Your task to perform on an android device: Do I have any events tomorrow? Image 0: 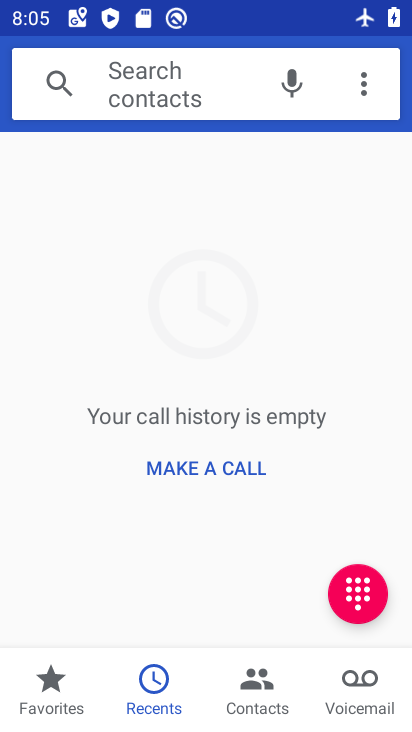
Step 0: press home button
Your task to perform on an android device: Do I have any events tomorrow? Image 1: 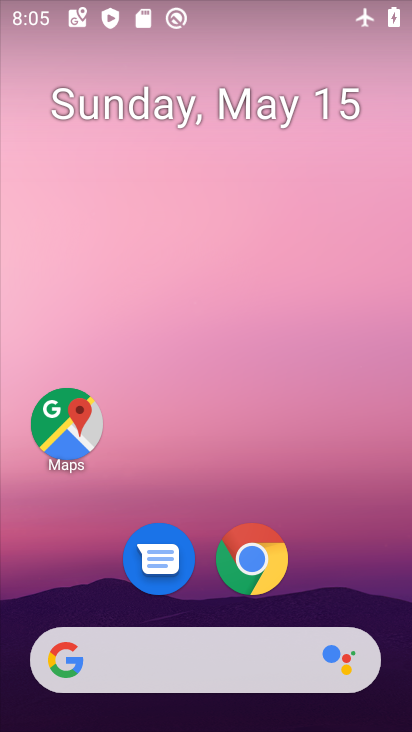
Step 1: drag from (365, 557) to (371, 111)
Your task to perform on an android device: Do I have any events tomorrow? Image 2: 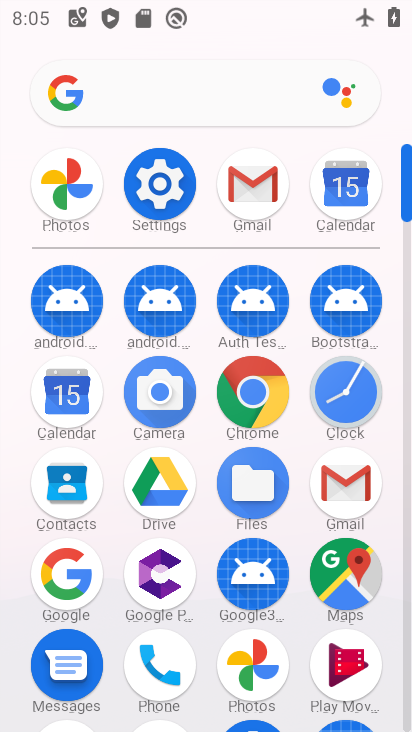
Step 2: click (81, 400)
Your task to perform on an android device: Do I have any events tomorrow? Image 3: 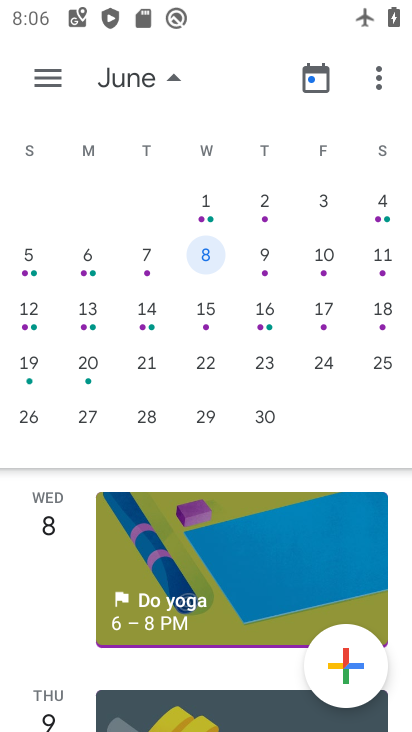
Step 3: drag from (1, 213) to (386, 213)
Your task to perform on an android device: Do I have any events tomorrow? Image 4: 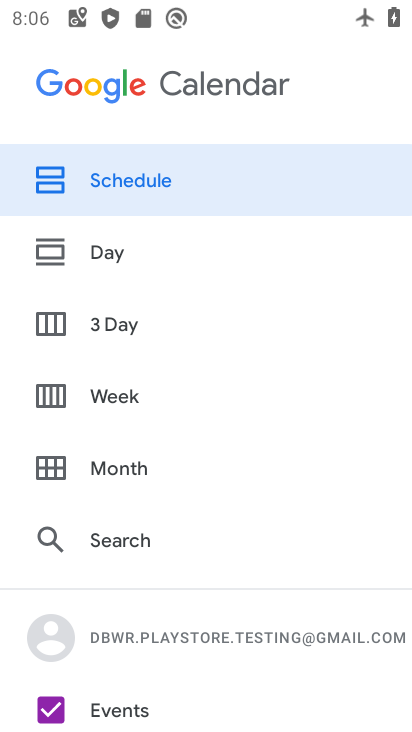
Step 4: press back button
Your task to perform on an android device: Do I have any events tomorrow? Image 5: 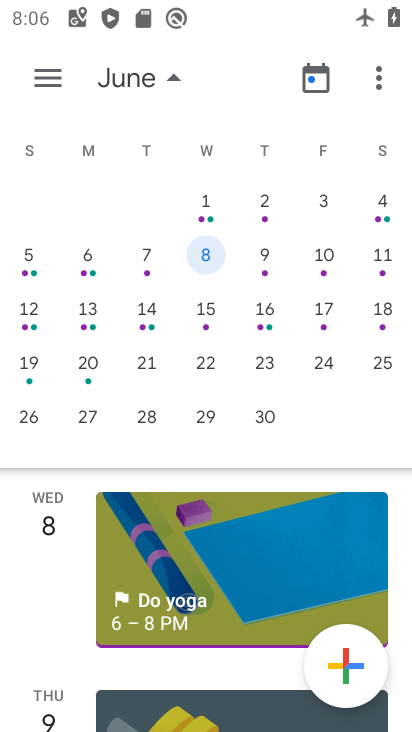
Step 5: drag from (48, 286) to (411, 397)
Your task to perform on an android device: Do I have any events tomorrow? Image 6: 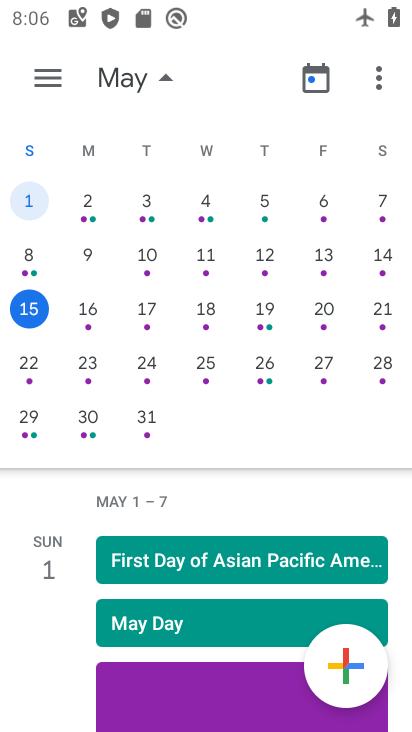
Step 6: click (52, 85)
Your task to perform on an android device: Do I have any events tomorrow? Image 7: 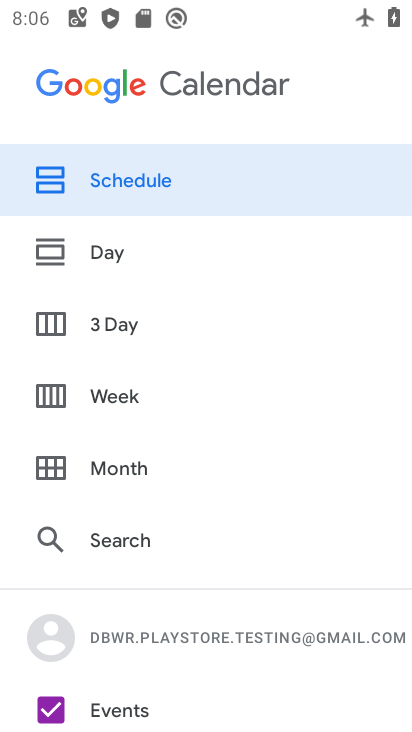
Step 7: click (91, 245)
Your task to perform on an android device: Do I have any events tomorrow? Image 8: 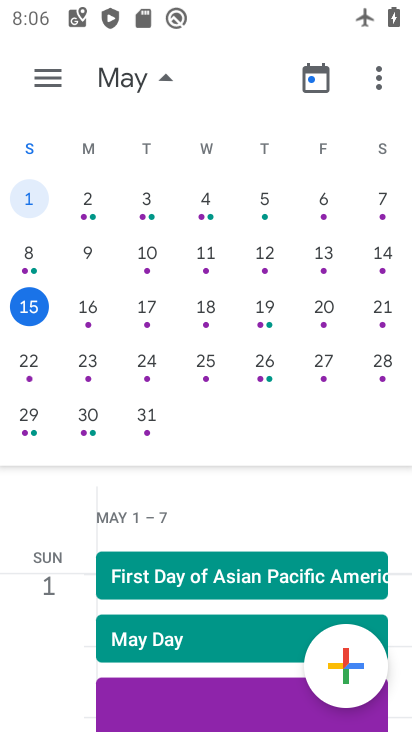
Step 8: task complete